Your task to perform on an android device: What's the weather today? Image 0: 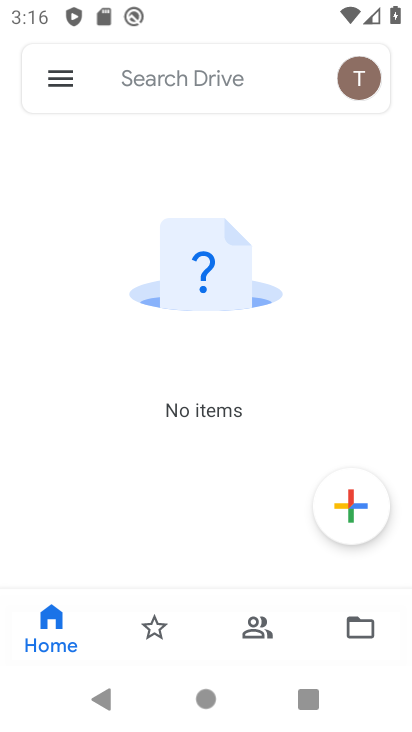
Step 0: press home button
Your task to perform on an android device: What's the weather today? Image 1: 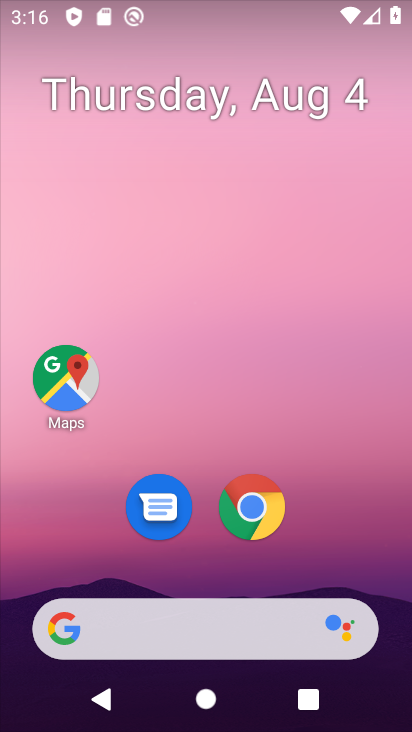
Step 1: drag from (215, 374) to (300, 105)
Your task to perform on an android device: What's the weather today? Image 2: 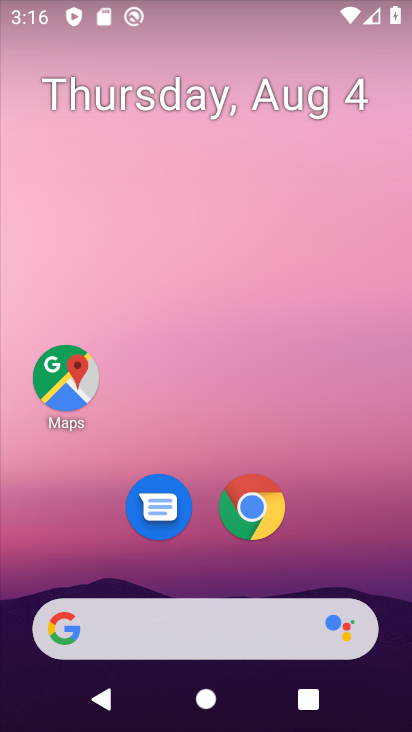
Step 2: drag from (193, 407) to (302, 11)
Your task to perform on an android device: What's the weather today? Image 3: 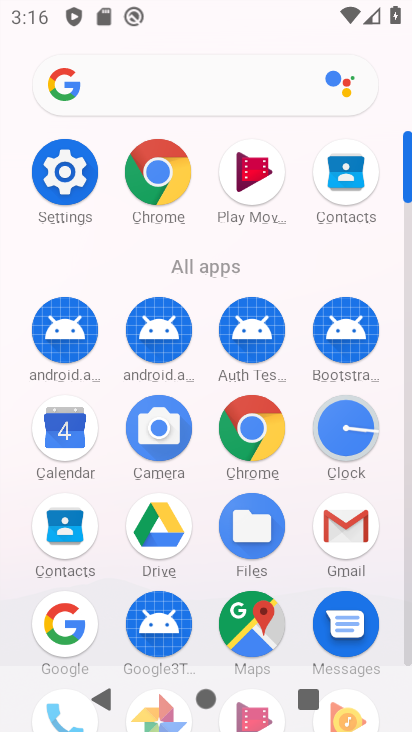
Step 3: click (149, 86)
Your task to perform on an android device: What's the weather today? Image 4: 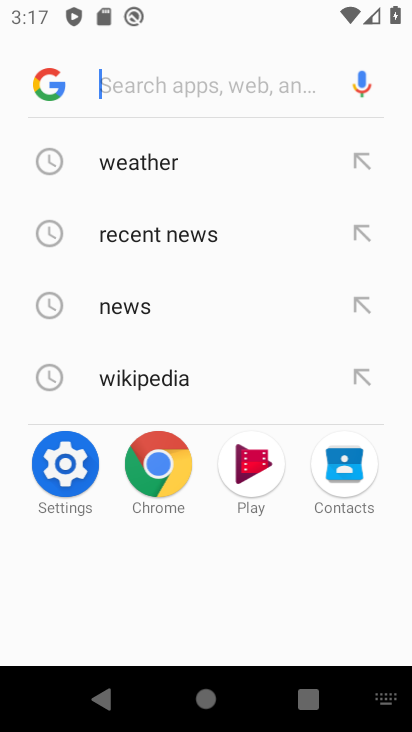
Step 4: type "What's the weather today?"
Your task to perform on an android device: What's the weather today? Image 5: 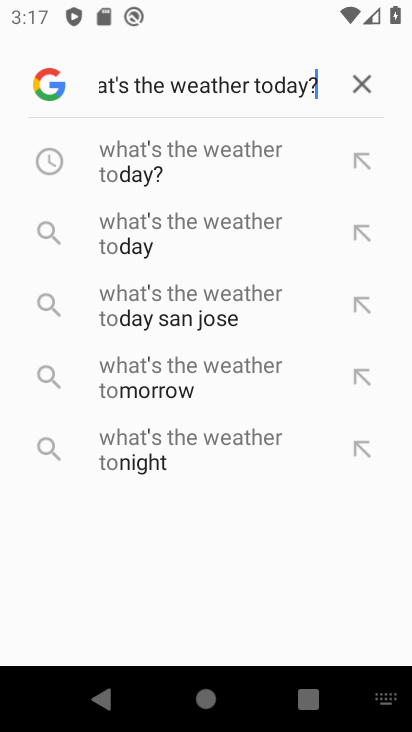
Step 5: type ""
Your task to perform on an android device: What's the weather today? Image 6: 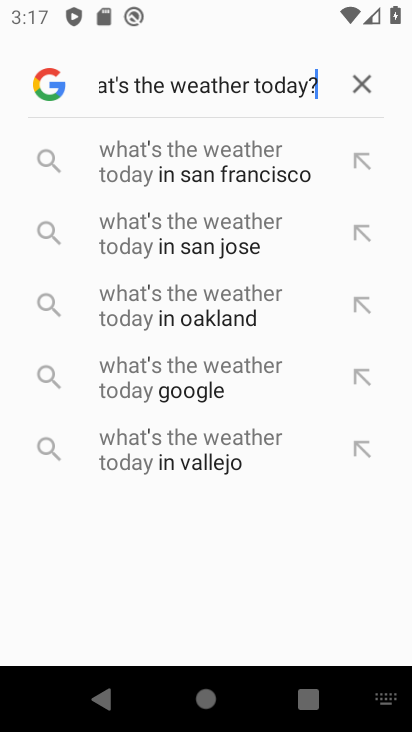
Step 6: task complete